Your task to perform on an android device: Open settings on Google Maps Image 0: 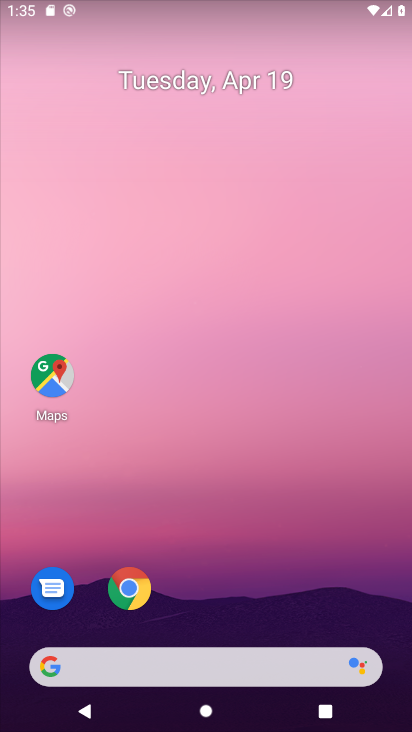
Step 0: click (52, 361)
Your task to perform on an android device: Open settings on Google Maps Image 1: 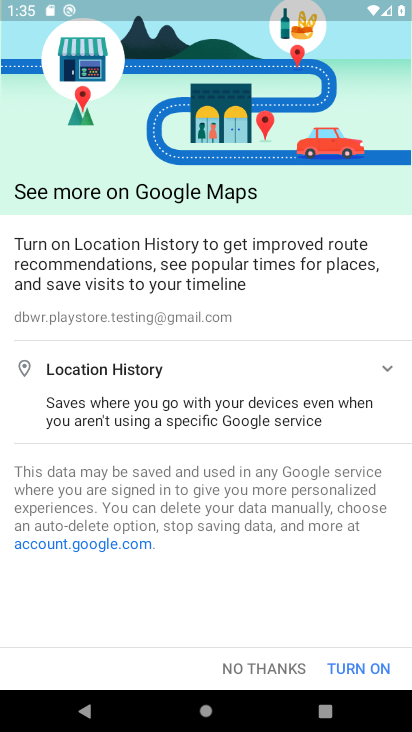
Step 1: click (357, 672)
Your task to perform on an android device: Open settings on Google Maps Image 2: 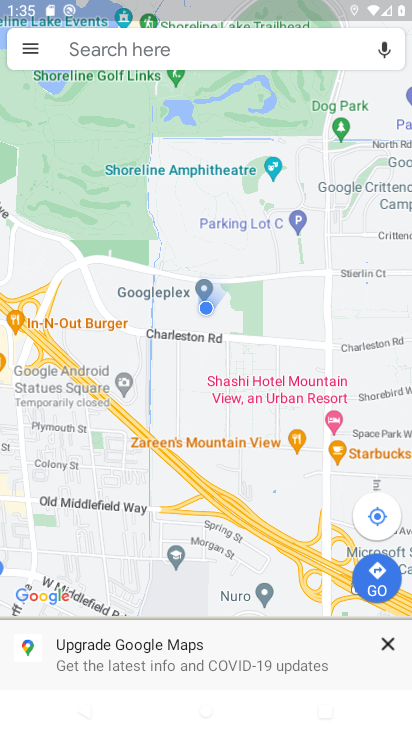
Step 2: click (34, 51)
Your task to perform on an android device: Open settings on Google Maps Image 3: 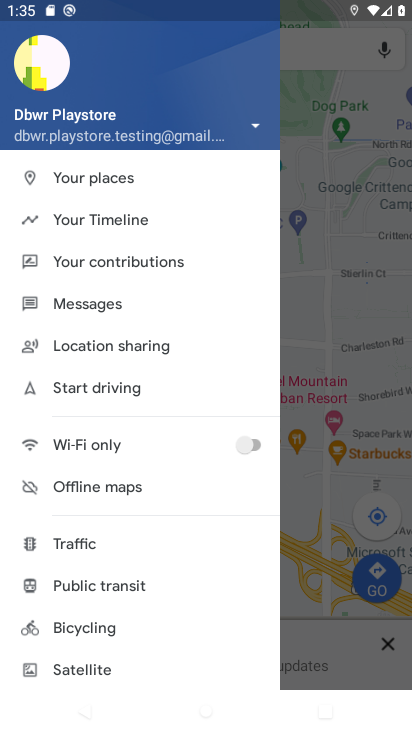
Step 3: drag from (80, 582) to (104, 100)
Your task to perform on an android device: Open settings on Google Maps Image 4: 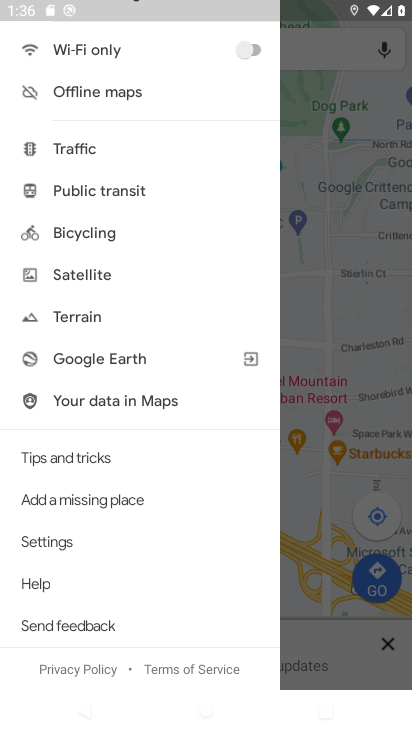
Step 4: click (58, 543)
Your task to perform on an android device: Open settings on Google Maps Image 5: 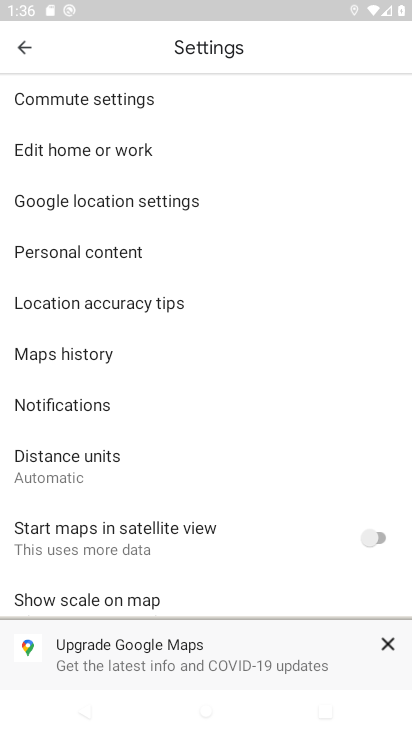
Step 5: task complete